Your task to perform on an android device: Search for vegetarian restaurants on Maps Image 0: 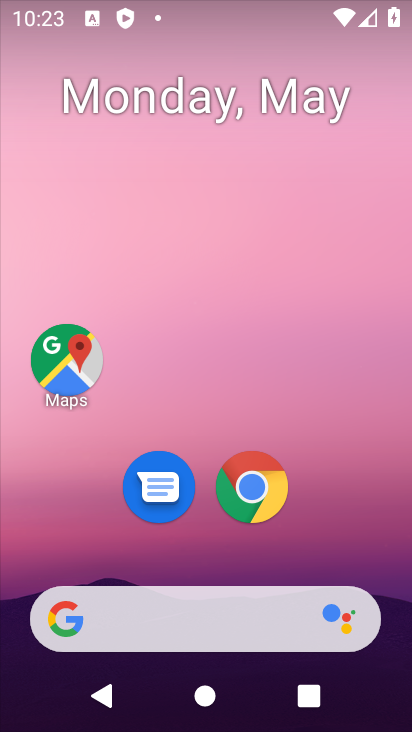
Step 0: click (64, 378)
Your task to perform on an android device: Search for vegetarian restaurants on Maps Image 1: 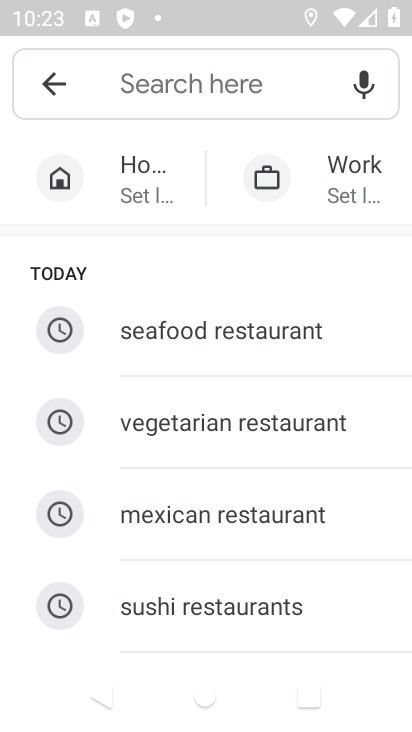
Step 1: click (270, 433)
Your task to perform on an android device: Search for vegetarian restaurants on Maps Image 2: 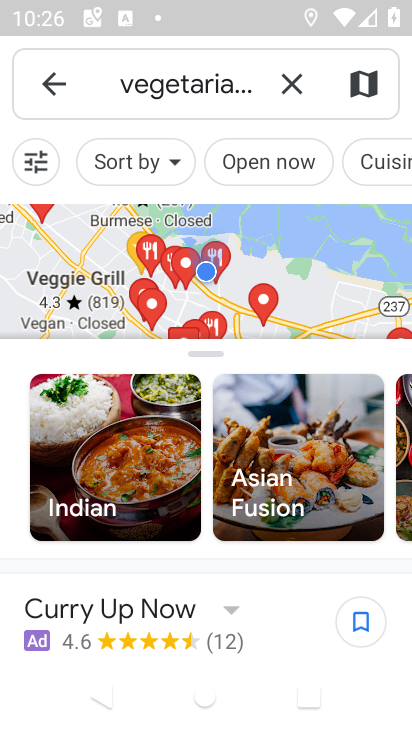
Step 2: task complete